Your task to perform on an android device: read, delete, or share a saved page in the chrome app Image 0: 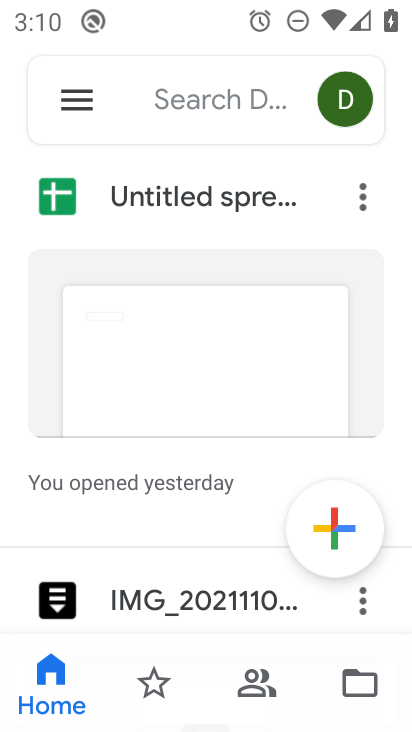
Step 0: press home button
Your task to perform on an android device: read, delete, or share a saved page in the chrome app Image 1: 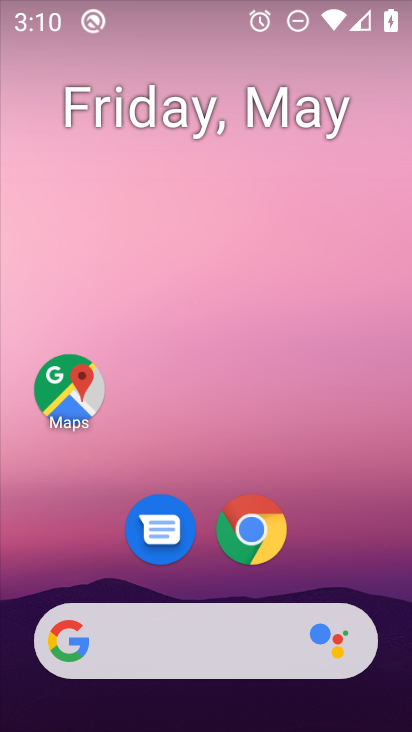
Step 1: drag from (397, 570) to (354, 259)
Your task to perform on an android device: read, delete, or share a saved page in the chrome app Image 2: 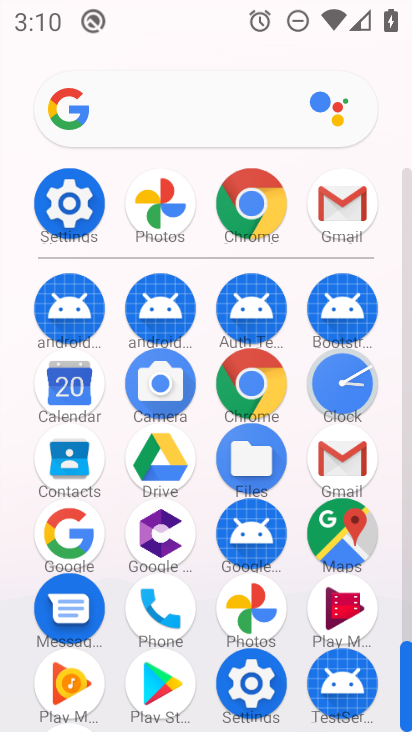
Step 2: click (251, 205)
Your task to perform on an android device: read, delete, or share a saved page in the chrome app Image 3: 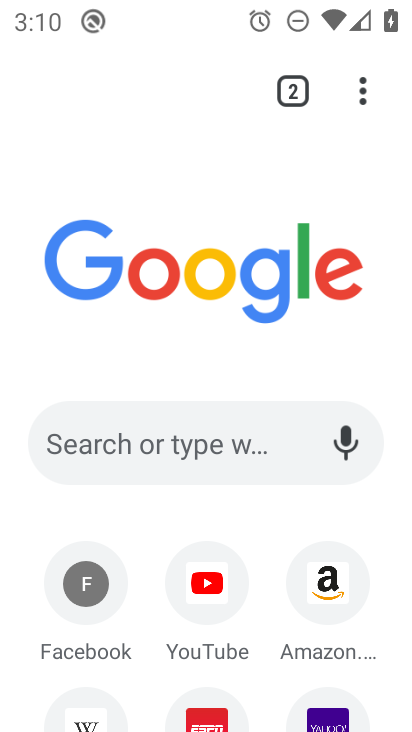
Step 3: click (357, 78)
Your task to perform on an android device: read, delete, or share a saved page in the chrome app Image 4: 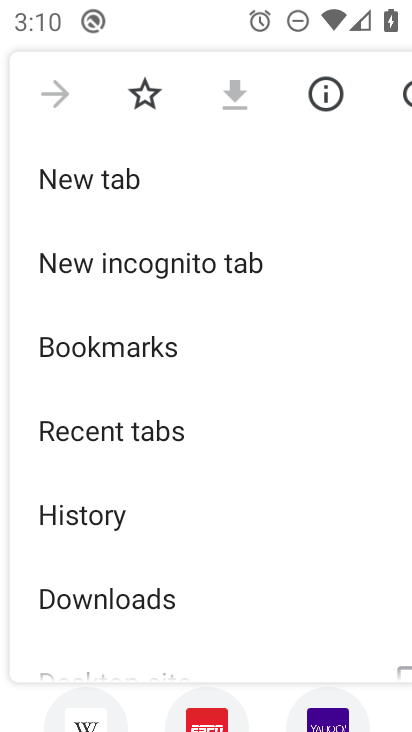
Step 4: click (103, 601)
Your task to perform on an android device: read, delete, or share a saved page in the chrome app Image 5: 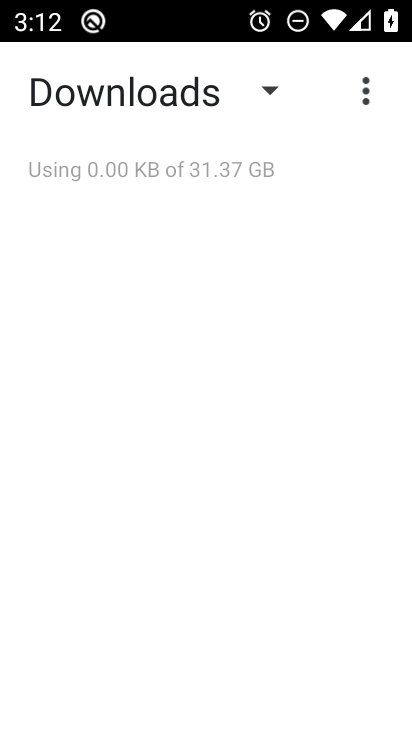
Step 5: task complete